Your task to perform on an android device: toggle show notifications on the lock screen Image 0: 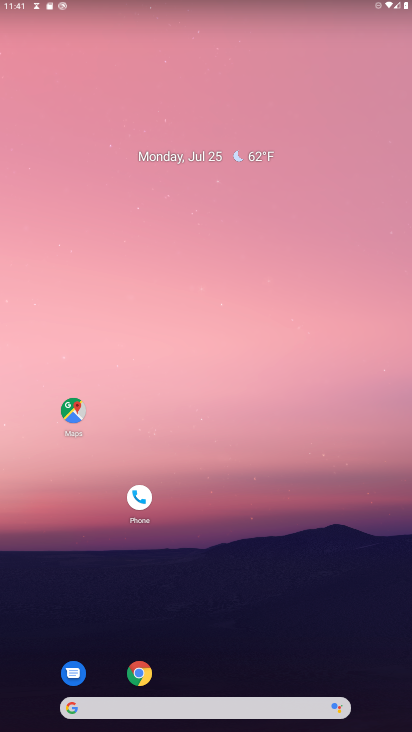
Step 0: press home button
Your task to perform on an android device: toggle show notifications on the lock screen Image 1: 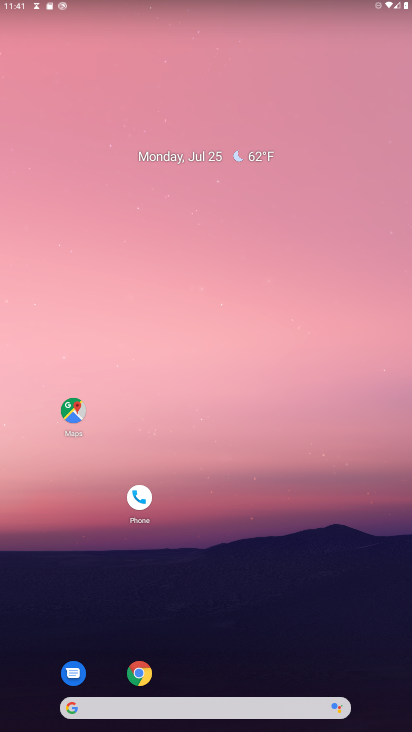
Step 1: drag from (298, 668) to (379, 173)
Your task to perform on an android device: toggle show notifications on the lock screen Image 2: 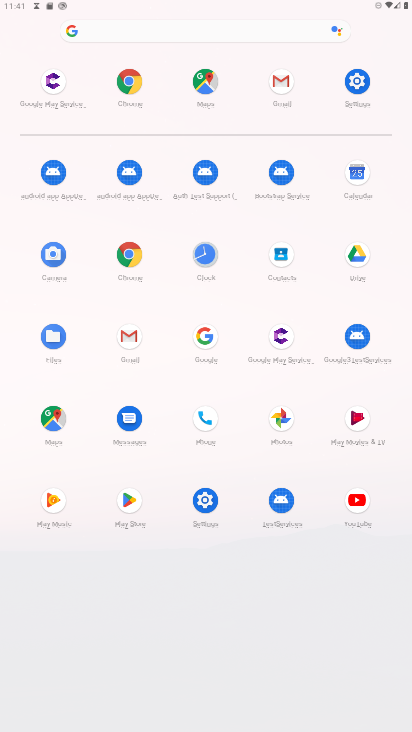
Step 2: click (361, 82)
Your task to perform on an android device: toggle show notifications on the lock screen Image 3: 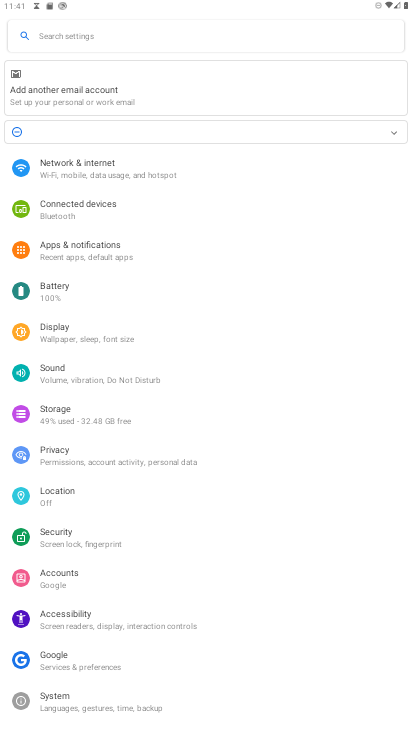
Step 3: click (117, 252)
Your task to perform on an android device: toggle show notifications on the lock screen Image 4: 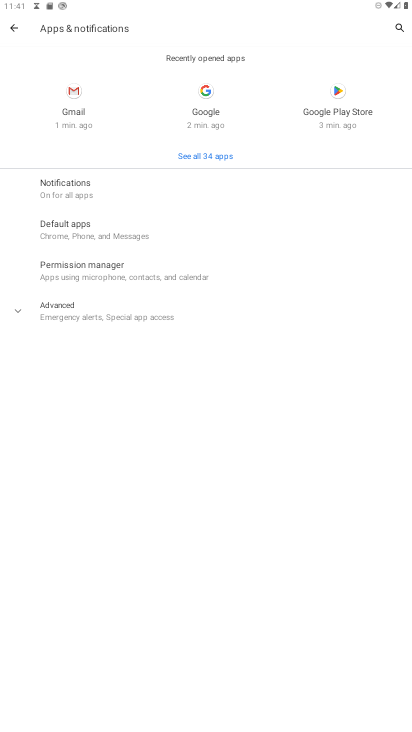
Step 4: click (90, 188)
Your task to perform on an android device: toggle show notifications on the lock screen Image 5: 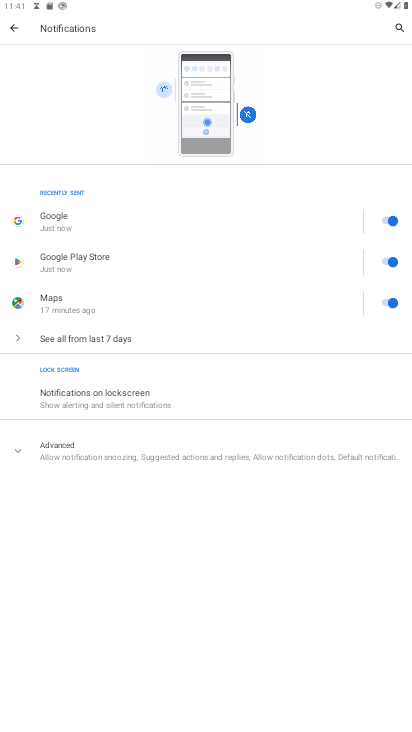
Step 5: click (90, 406)
Your task to perform on an android device: toggle show notifications on the lock screen Image 6: 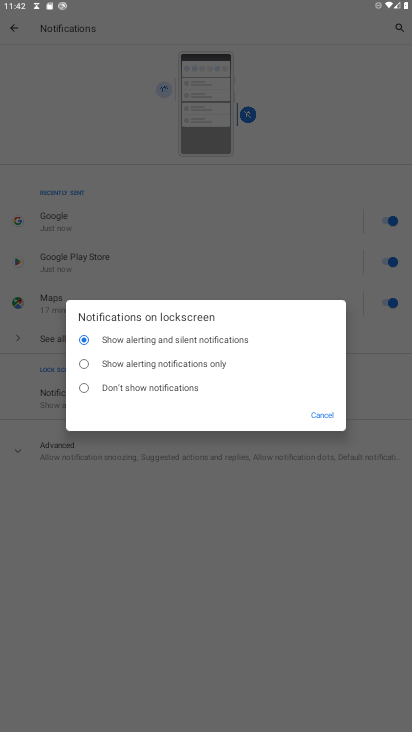
Step 6: click (82, 385)
Your task to perform on an android device: toggle show notifications on the lock screen Image 7: 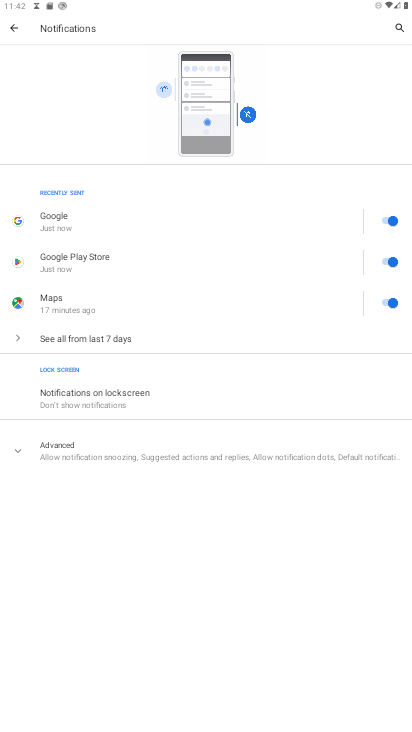
Step 7: task complete